Your task to perform on an android device: search for starred emails in the gmail app Image 0: 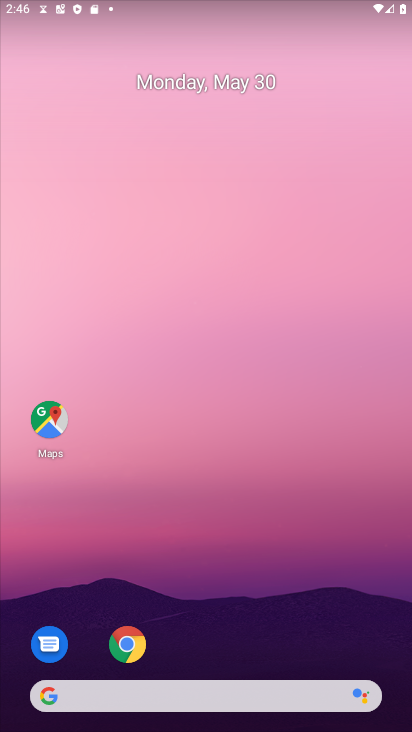
Step 0: drag from (285, 650) to (273, 106)
Your task to perform on an android device: search for starred emails in the gmail app Image 1: 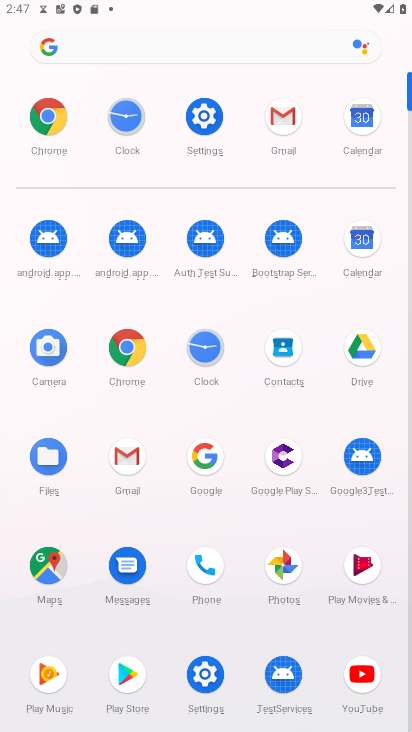
Step 1: click (274, 116)
Your task to perform on an android device: search for starred emails in the gmail app Image 2: 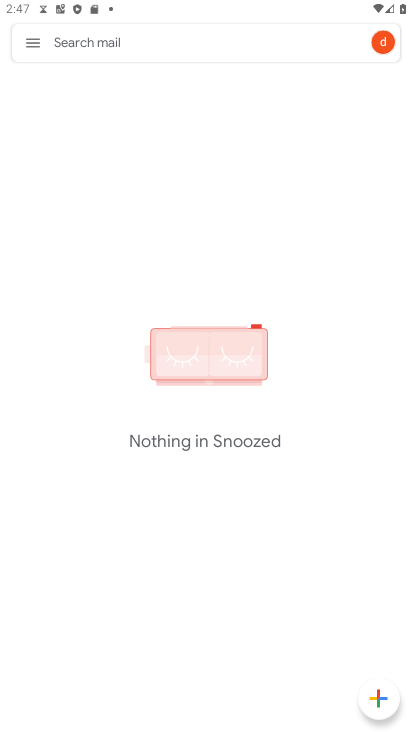
Step 2: click (27, 46)
Your task to perform on an android device: search for starred emails in the gmail app Image 3: 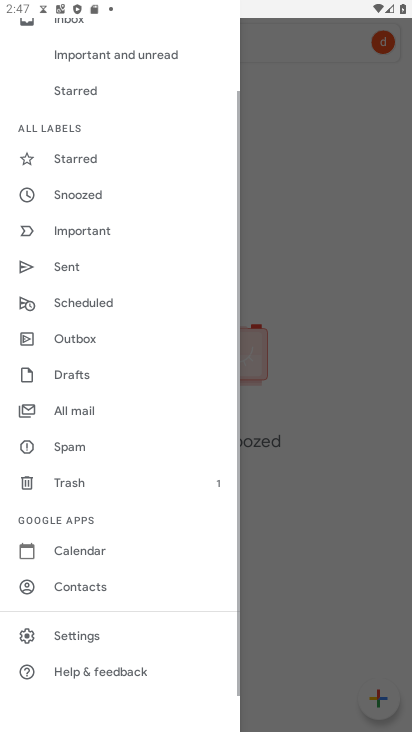
Step 3: click (60, 82)
Your task to perform on an android device: search for starred emails in the gmail app Image 4: 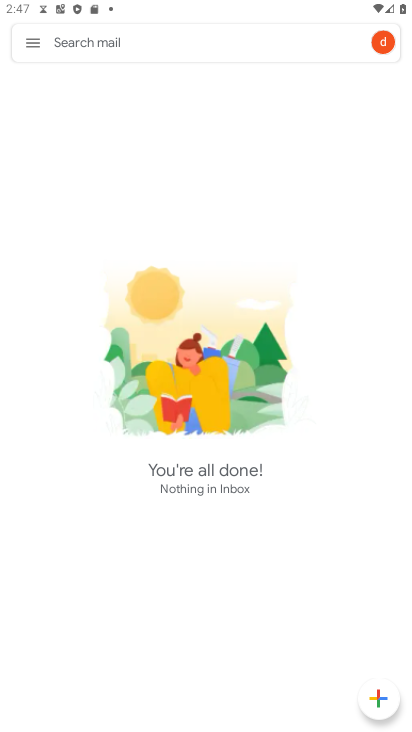
Step 4: task complete